Your task to perform on an android device: turn on the 24-hour format for clock Image 0: 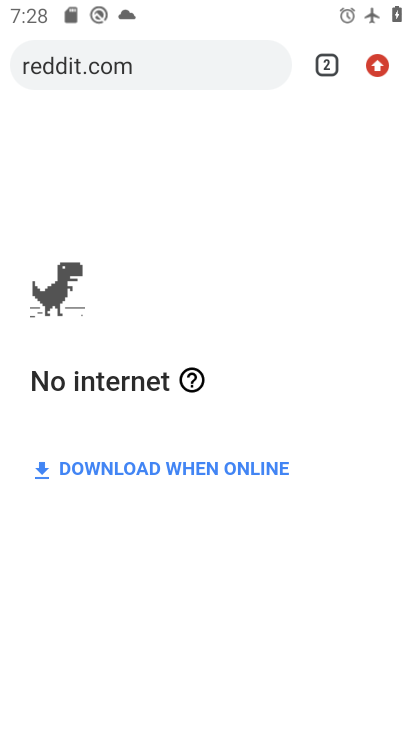
Step 0: press home button
Your task to perform on an android device: turn on the 24-hour format for clock Image 1: 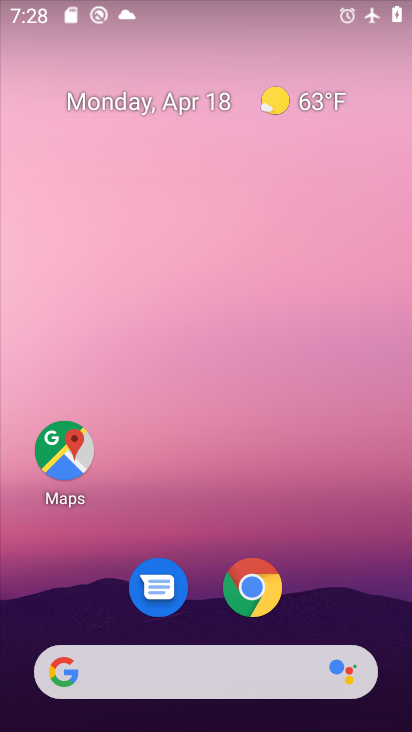
Step 1: drag from (309, 596) to (318, 273)
Your task to perform on an android device: turn on the 24-hour format for clock Image 2: 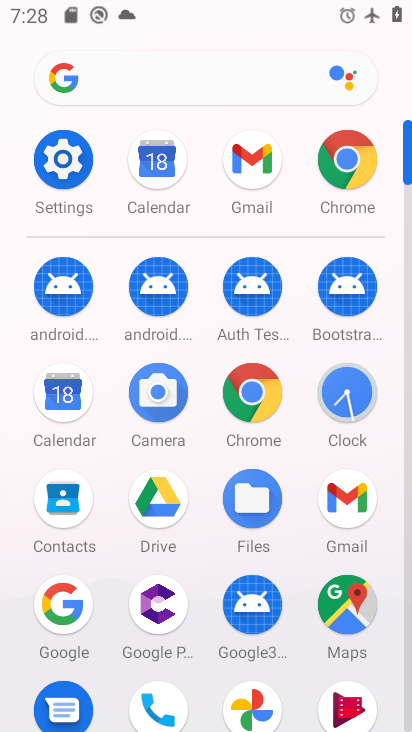
Step 2: click (329, 394)
Your task to perform on an android device: turn on the 24-hour format for clock Image 3: 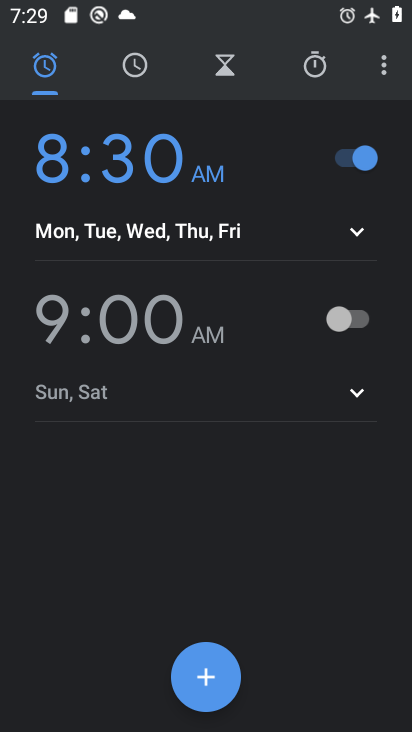
Step 3: click (390, 78)
Your task to perform on an android device: turn on the 24-hour format for clock Image 4: 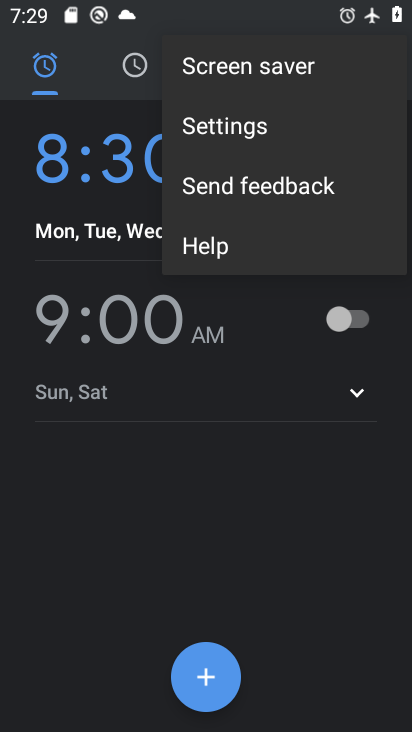
Step 4: click (292, 136)
Your task to perform on an android device: turn on the 24-hour format for clock Image 5: 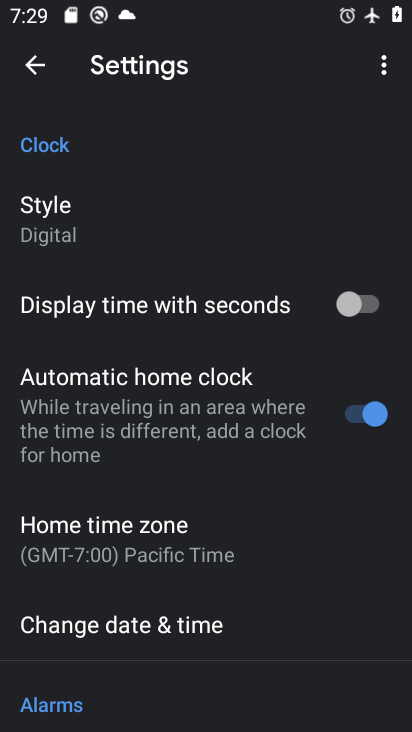
Step 5: drag from (220, 574) to (277, 282)
Your task to perform on an android device: turn on the 24-hour format for clock Image 6: 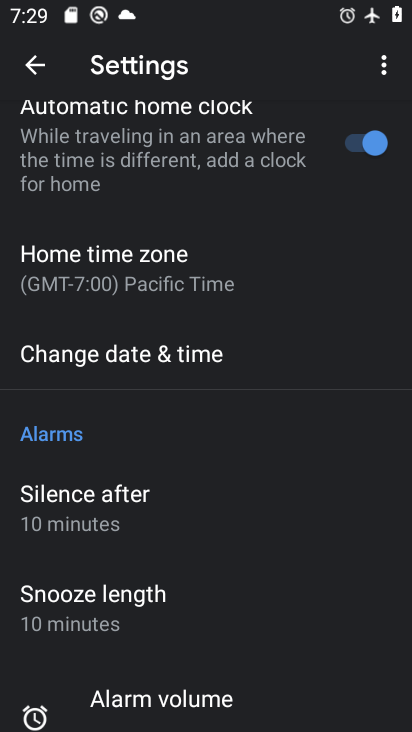
Step 6: click (271, 366)
Your task to perform on an android device: turn on the 24-hour format for clock Image 7: 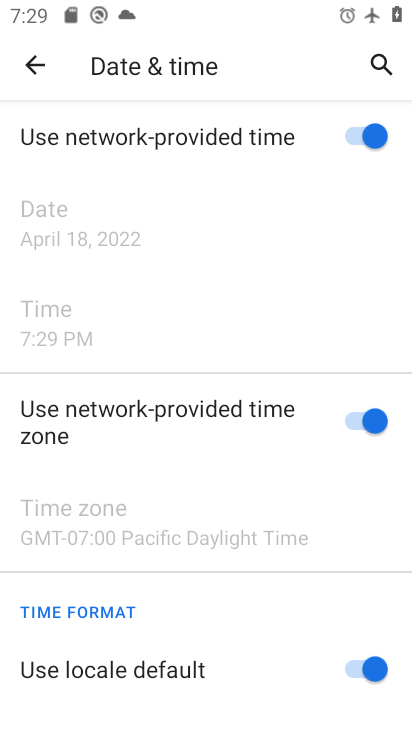
Step 7: drag from (218, 549) to (279, 152)
Your task to perform on an android device: turn on the 24-hour format for clock Image 8: 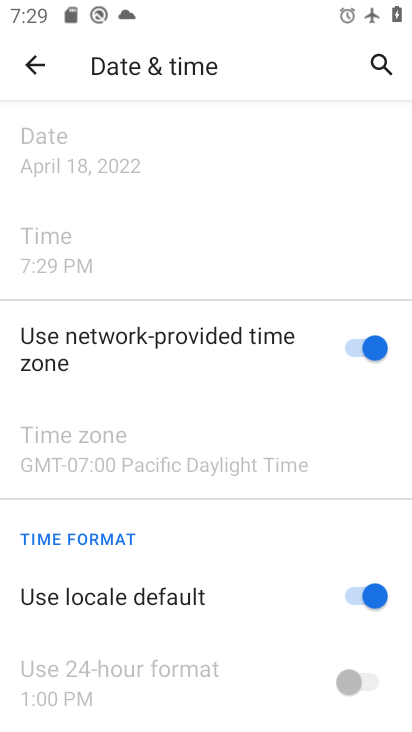
Step 8: click (373, 568)
Your task to perform on an android device: turn on the 24-hour format for clock Image 9: 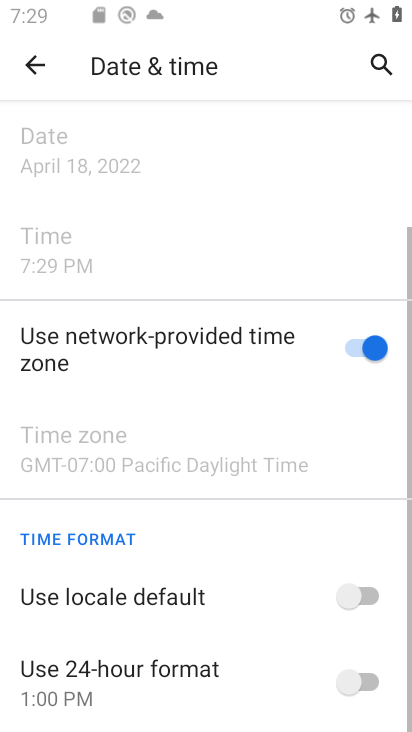
Step 9: click (367, 672)
Your task to perform on an android device: turn on the 24-hour format for clock Image 10: 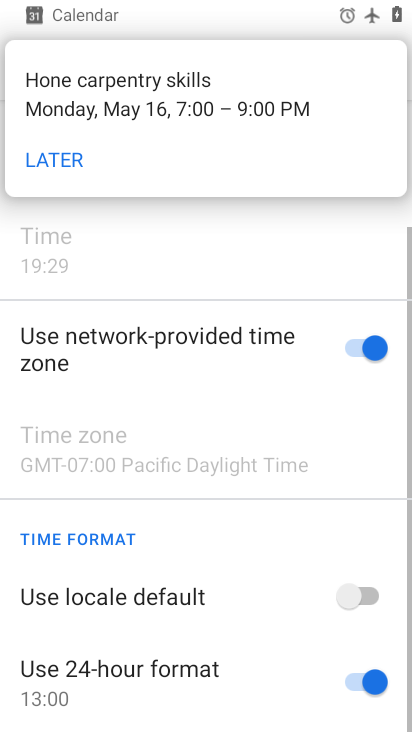
Step 10: task complete